Your task to perform on an android device: Open ESPN.com Image 0: 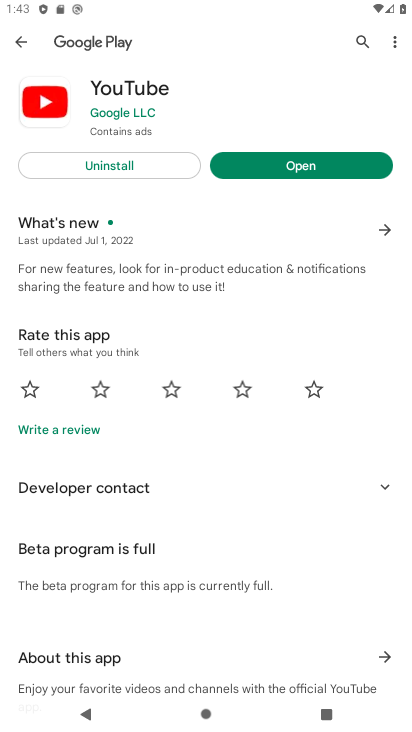
Step 0: press home button
Your task to perform on an android device: Open ESPN.com Image 1: 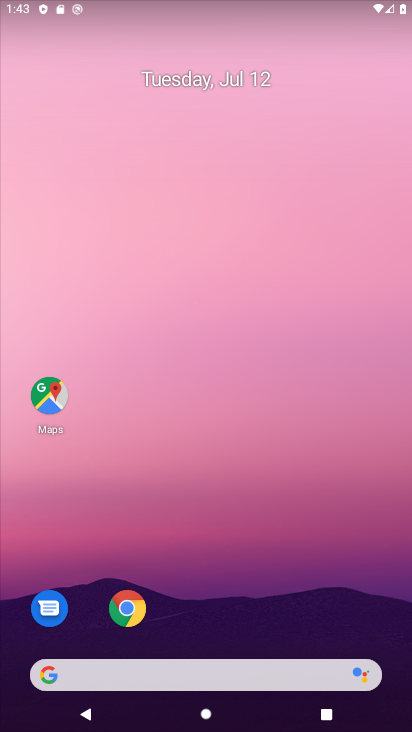
Step 1: drag from (316, 606) to (279, 42)
Your task to perform on an android device: Open ESPN.com Image 2: 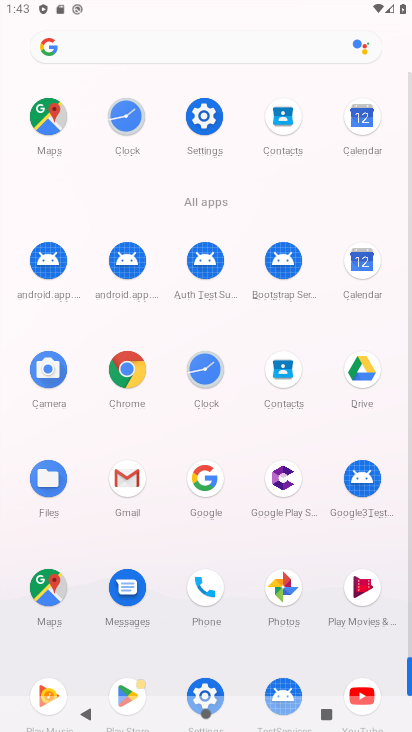
Step 2: click (128, 371)
Your task to perform on an android device: Open ESPN.com Image 3: 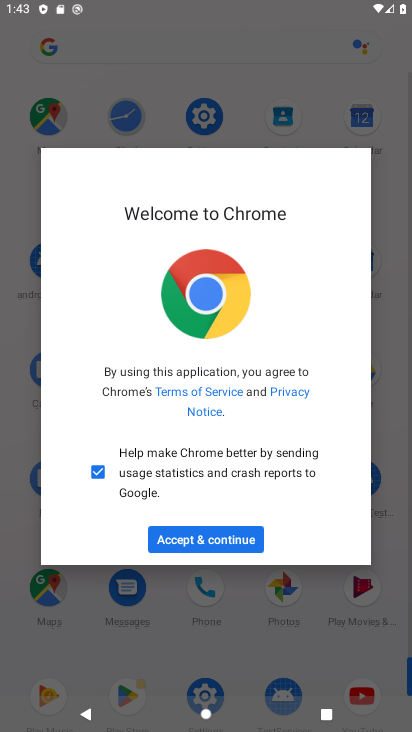
Step 3: click (244, 537)
Your task to perform on an android device: Open ESPN.com Image 4: 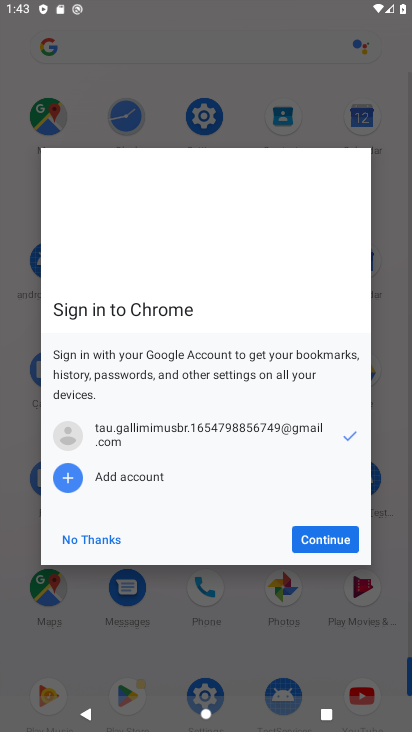
Step 4: click (330, 535)
Your task to perform on an android device: Open ESPN.com Image 5: 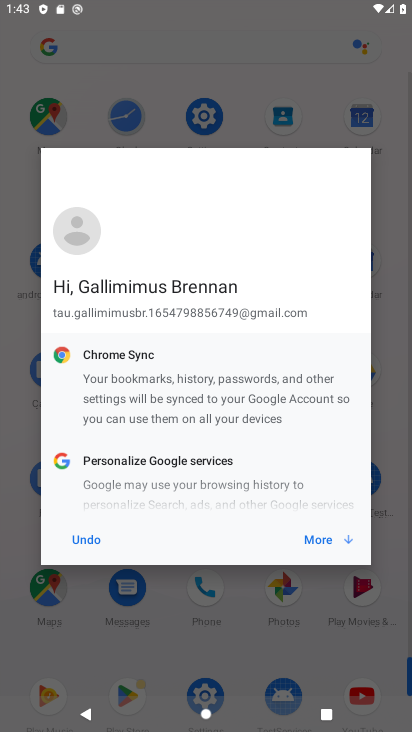
Step 5: click (330, 535)
Your task to perform on an android device: Open ESPN.com Image 6: 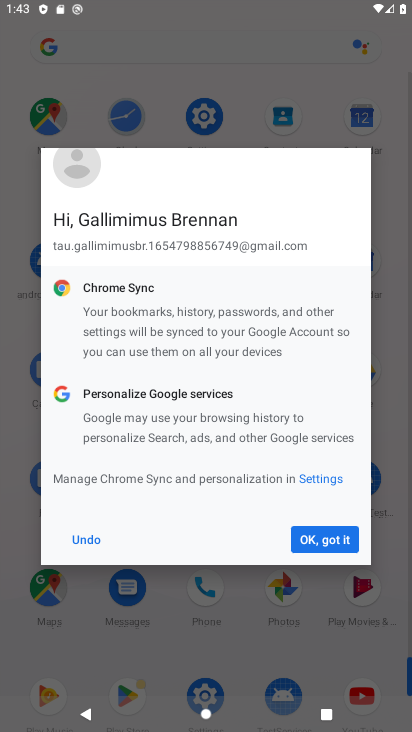
Step 6: click (330, 535)
Your task to perform on an android device: Open ESPN.com Image 7: 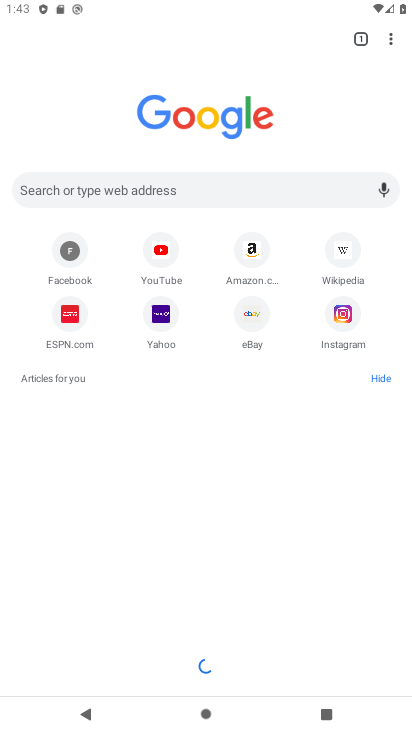
Step 7: click (67, 328)
Your task to perform on an android device: Open ESPN.com Image 8: 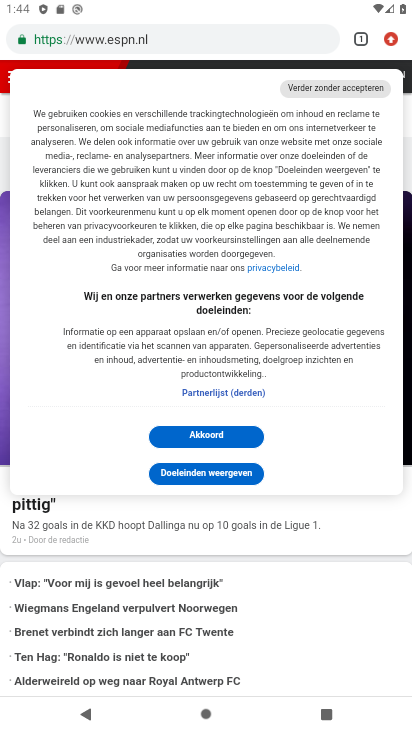
Step 8: task complete